Your task to perform on an android device: Open the Play Movies app and select the watchlist tab. Image 0: 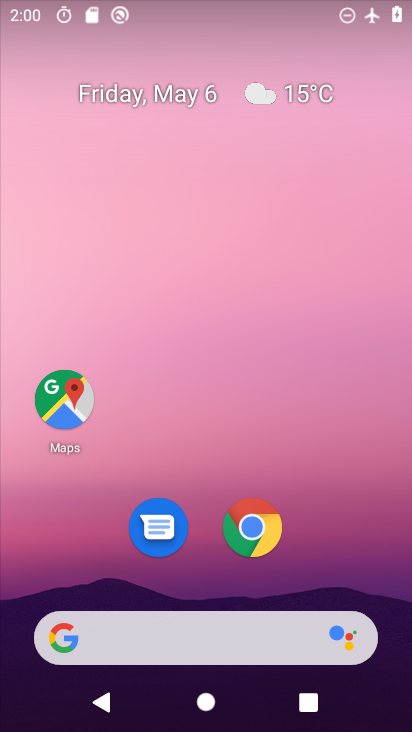
Step 0: drag from (329, 564) to (178, 67)
Your task to perform on an android device: Open the Play Movies app and select the watchlist tab. Image 1: 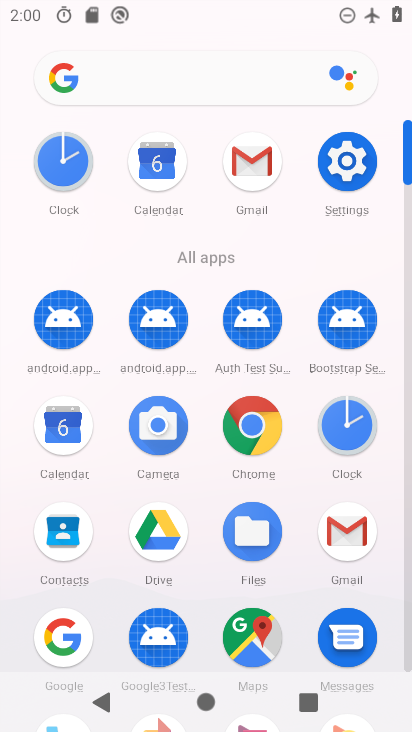
Step 1: drag from (211, 619) to (211, 203)
Your task to perform on an android device: Open the Play Movies app and select the watchlist tab. Image 2: 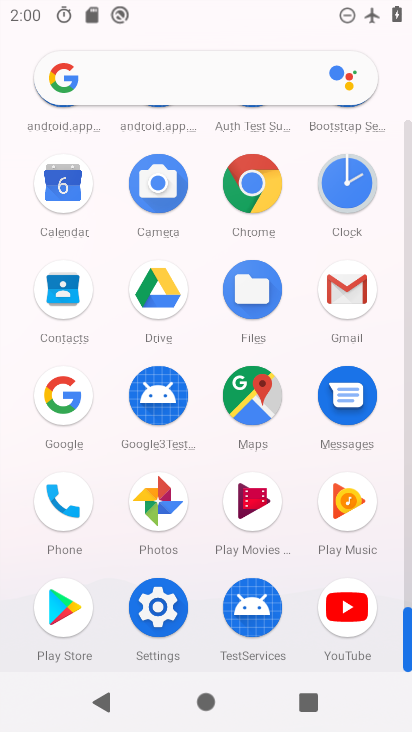
Step 2: click (251, 508)
Your task to perform on an android device: Open the Play Movies app and select the watchlist tab. Image 3: 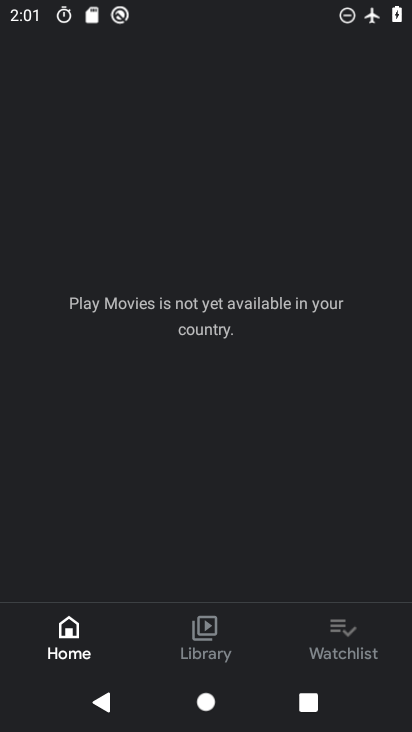
Step 3: click (349, 643)
Your task to perform on an android device: Open the Play Movies app and select the watchlist tab. Image 4: 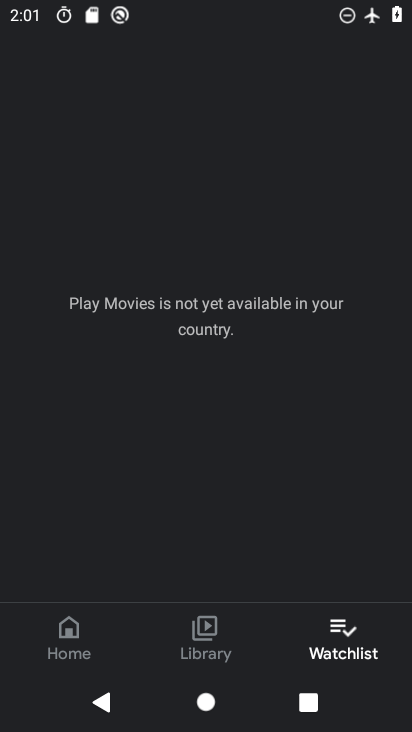
Step 4: task complete